Your task to perform on an android device: Open settings on Google Maps Image 0: 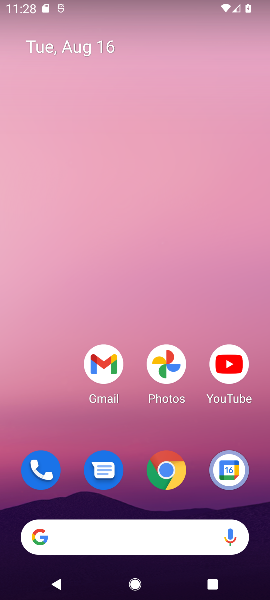
Step 0: drag from (41, 340) to (82, 36)
Your task to perform on an android device: Open settings on Google Maps Image 1: 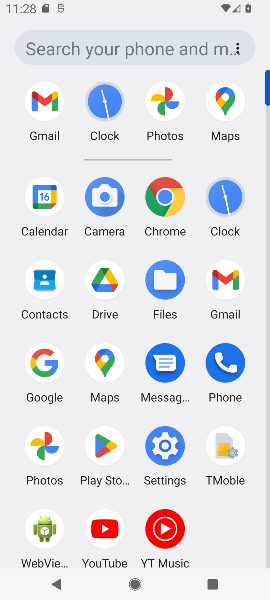
Step 1: click (224, 102)
Your task to perform on an android device: Open settings on Google Maps Image 2: 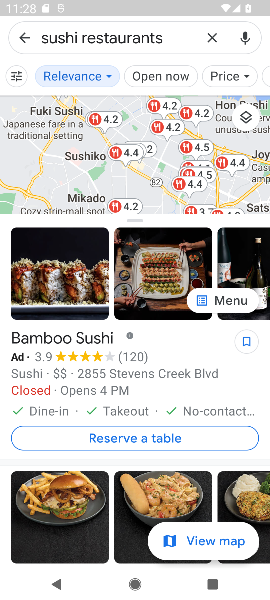
Step 2: click (21, 35)
Your task to perform on an android device: Open settings on Google Maps Image 3: 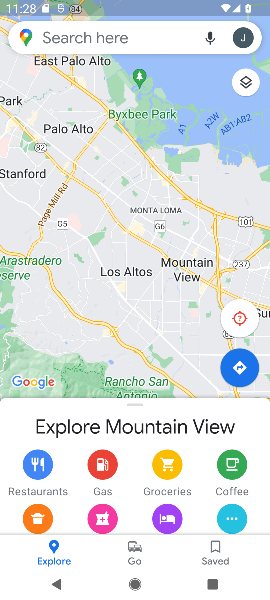
Step 3: click (245, 42)
Your task to perform on an android device: Open settings on Google Maps Image 4: 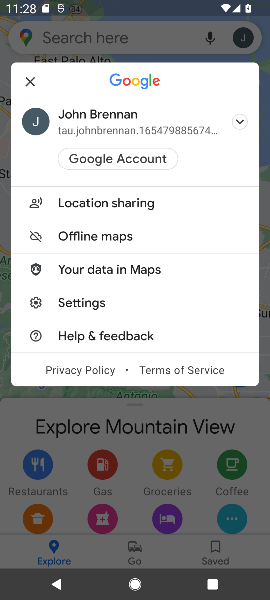
Step 4: click (90, 301)
Your task to perform on an android device: Open settings on Google Maps Image 5: 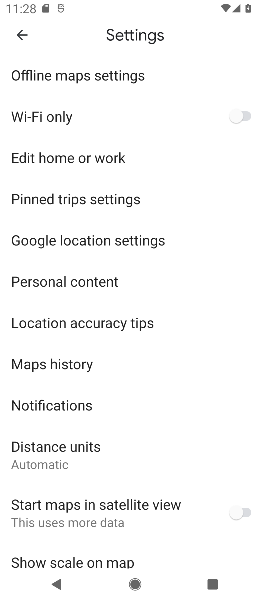
Step 5: task complete